Your task to perform on an android device: delete a single message in the gmail app Image 0: 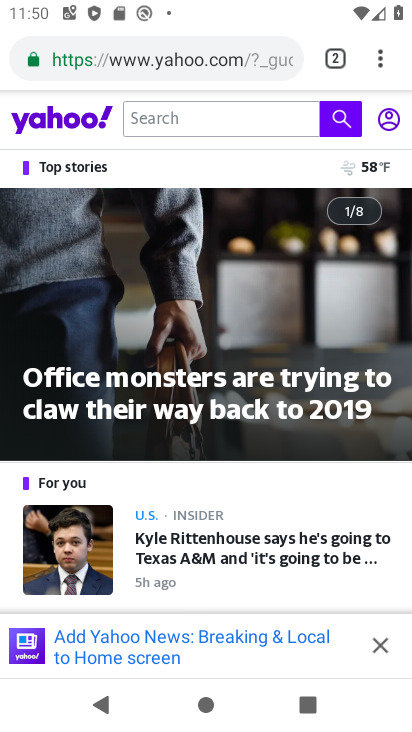
Step 0: press home button
Your task to perform on an android device: delete a single message in the gmail app Image 1: 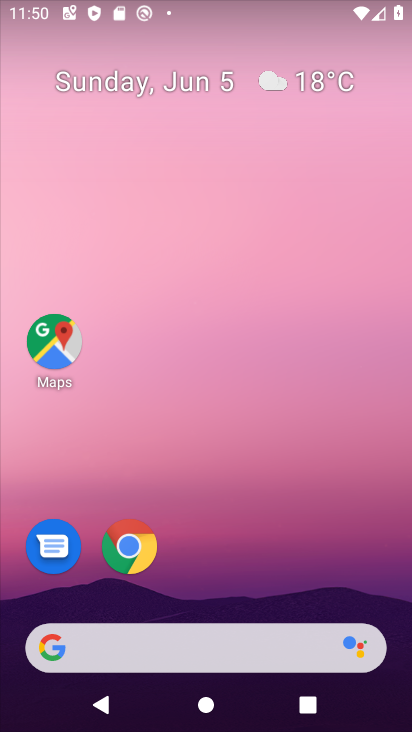
Step 1: drag from (295, 509) to (324, 116)
Your task to perform on an android device: delete a single message in the gmail app Image 2: 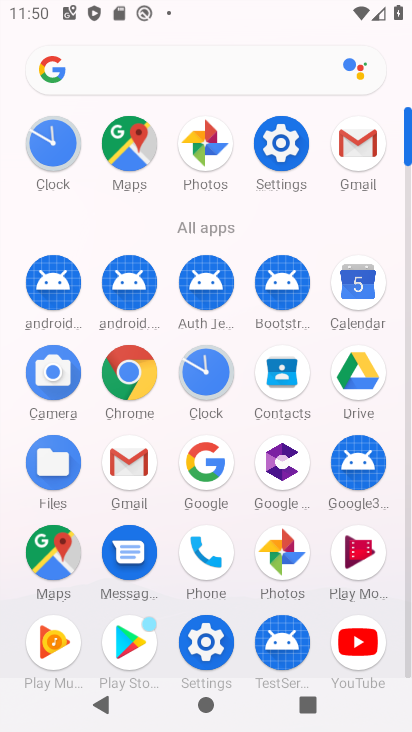
Step 2: click (350, 155)
Your task to perform on an android device: delete a single message in the gmail app Image 3: 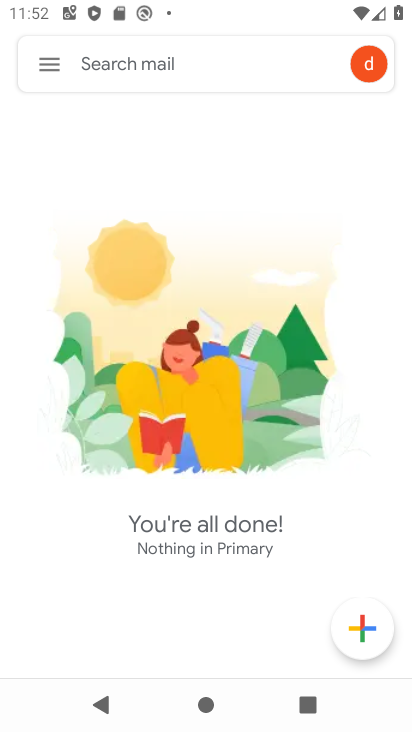
Step 3: task complete